Your task to perform on an android device: turn on the 24-hour format for clock Image 0: 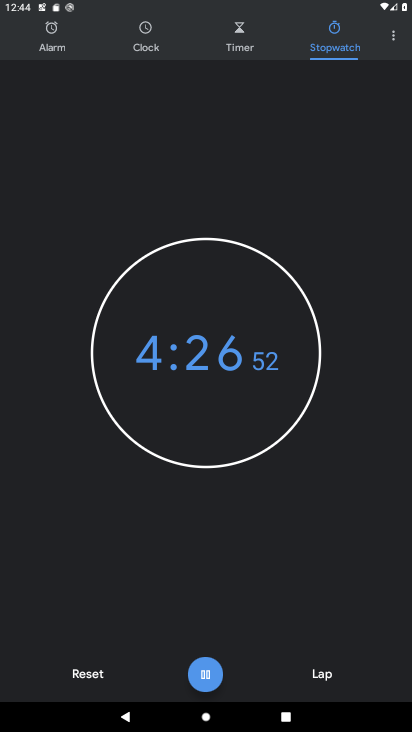
Step 0: click (396, 40)
Your task to perform on an android device: turn on the 24-hour format for clock Image 1: 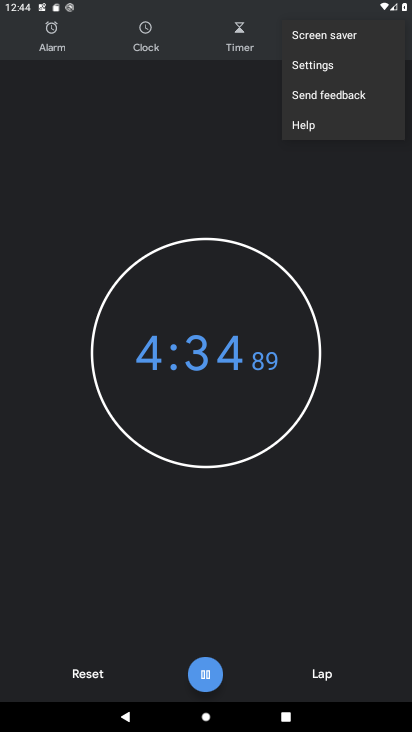
Step 1: click (351, 70)
Your task to perform on an android device: turn on the 24-hour format for clock Image 2: 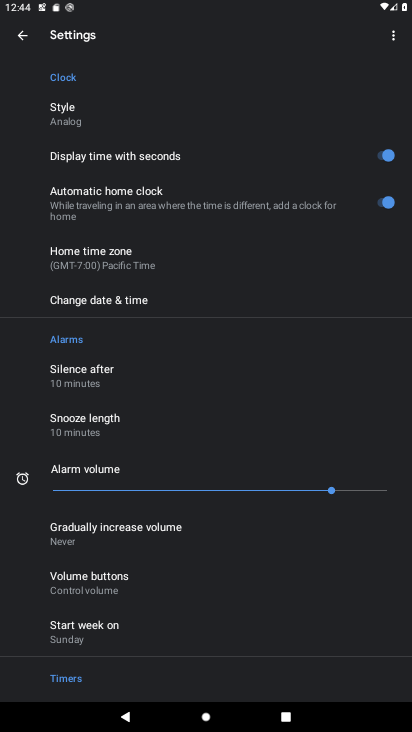
Step 2: click (204, 290)
Your task to perform on an android device: turn on the 24-hour format for clock Image 3: 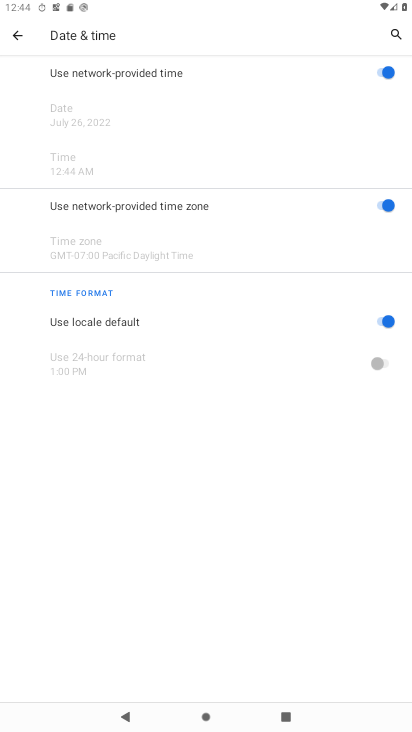
Step 3: click (378, 329)
Your task to perform on an android device: turn on the 24-hour format for clock Image 4: 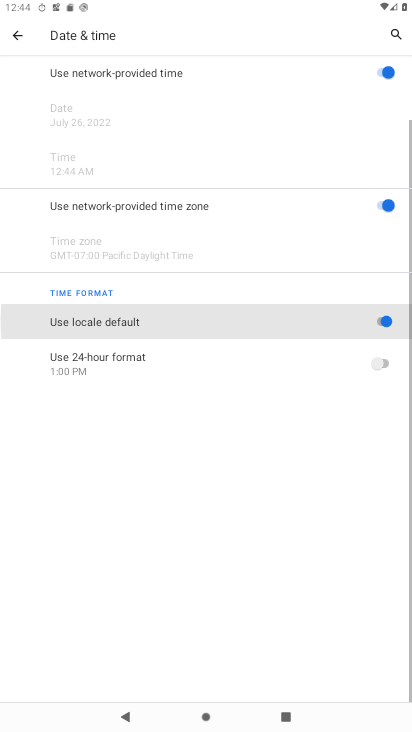
Step 4: click (408, 402)
Your task to perform on an android device: turn on the 24-hour format for clock Image 5: 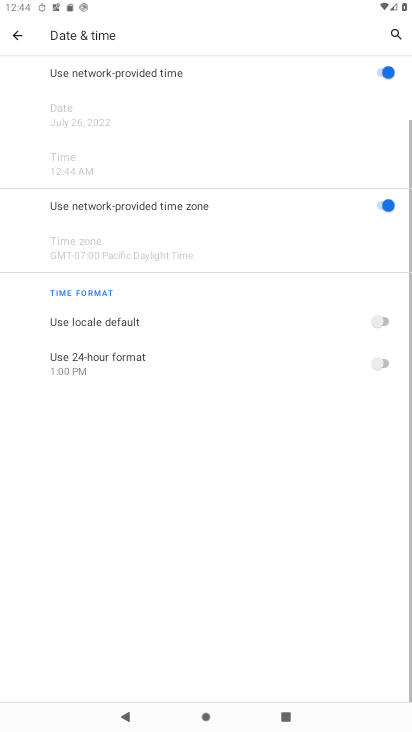
Step 5: click (393, 361)
Your task to perform on an android device: turn on the 24-hour format for clock Image 6: 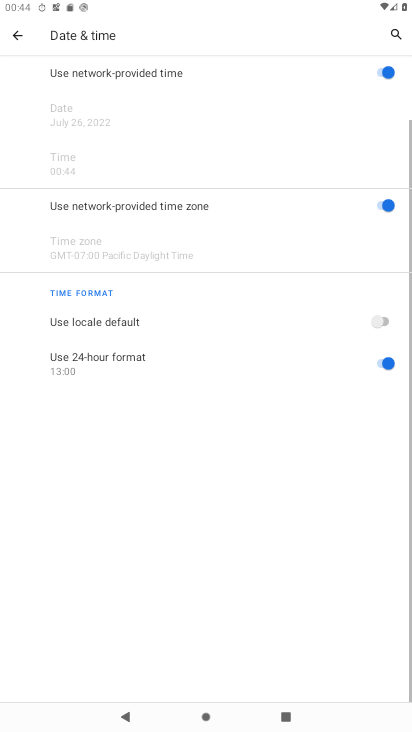
Step 6: task complete